Your task to perform on an android device: Open Youtube and go to "Your channel" Image 0: 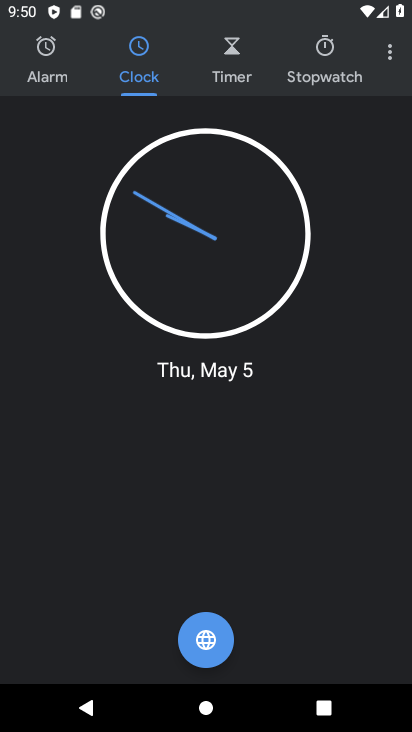
Step 0: press home button
Your task to perform on an android device: Open Youtube and go to "Your channel" Image 1: 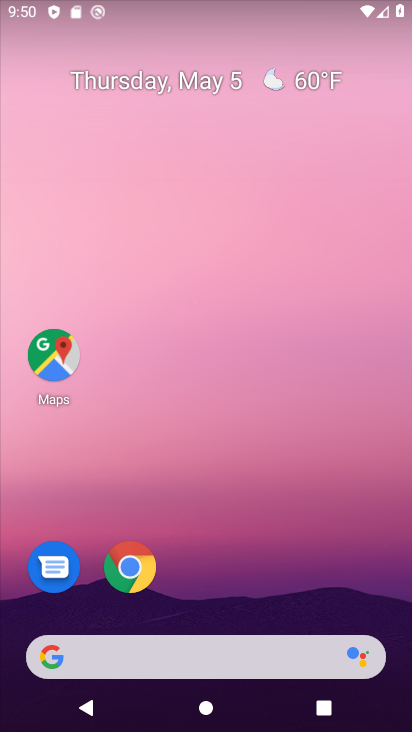
Step 1: drag from (229, 610) to (231, 186)
Your task to perform on an android device: Open Youtube and go to "Your channel" Image 2: 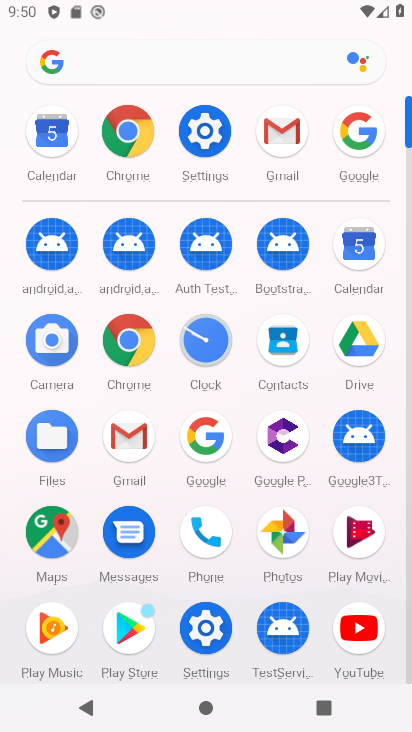
Step 2: click (364, 628)
Your task to perform on an android device: Open Youtube and go to "Your channel" Image 3: 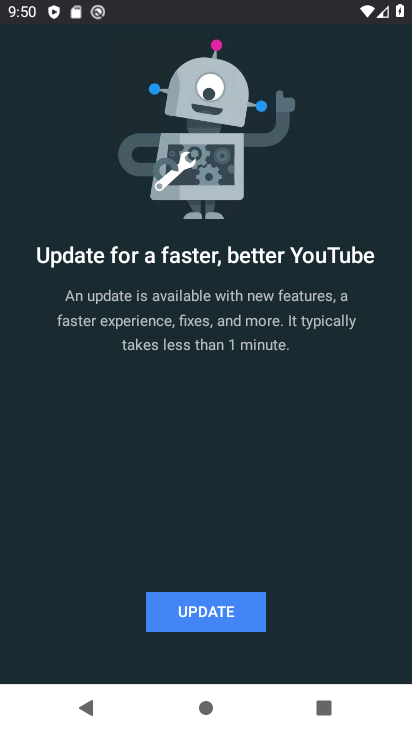
Step 3: click (228, 605)
Your task to perform on an android device: Open Youtube and go to "Your channel" Image 4: 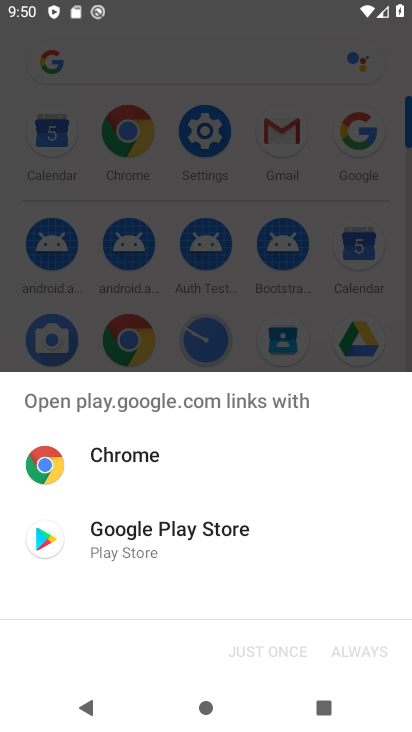
Step 4: click (188, 539)
Your task to perform on an android device: Open Youtube and go to "Your channel" Image 5: 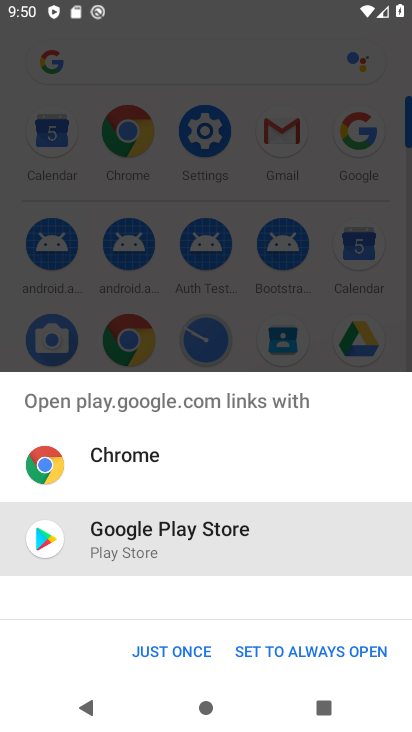
Step 5: click (262, 641)
Your task to perform on an android device: Open Youtube and go to "Your channel" Image 6: 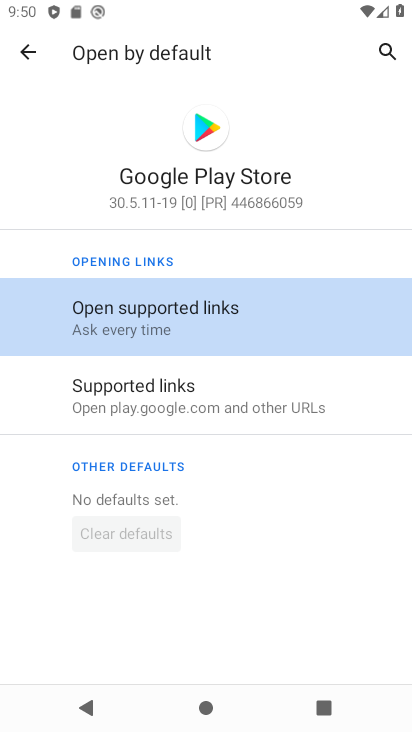
Step 6: click (20, 50)
Your task to perform on an android device: Open Youtube and go to "Your channel" Image 7: 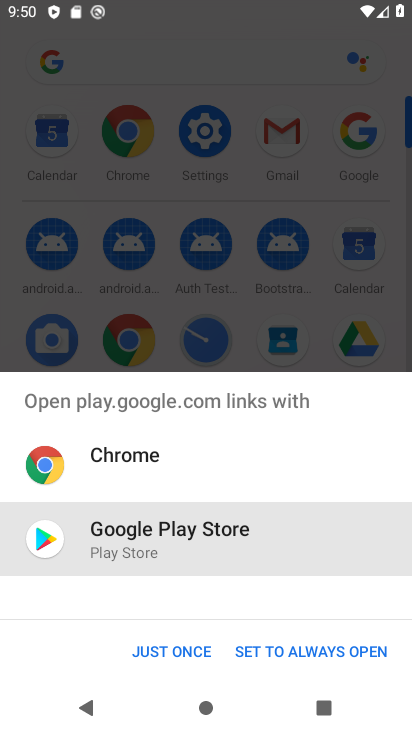
Step 7: click (188, 654)
Your task to perform on an android device: Open Youtube and go to "Your channel" Image 8: 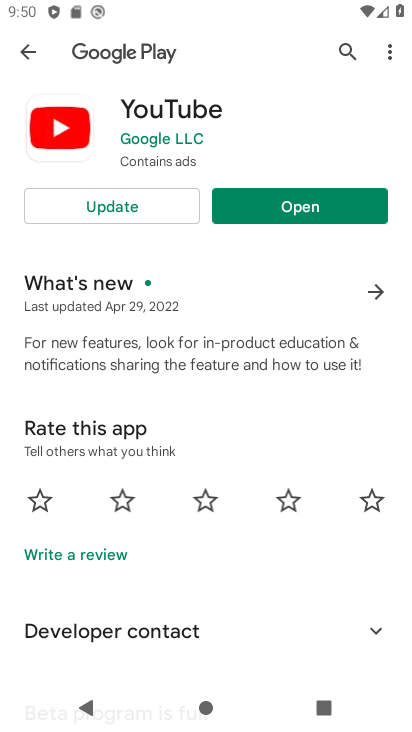
Step 8: click (135, 199)
Your task to perform on an android device: Open Youtube and go to "Your channel" Image 9: 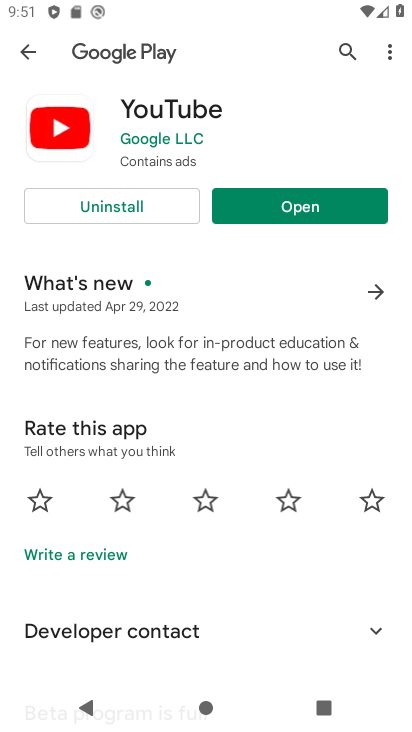
Step 9: click (235, 211)
Your task to perform on an android device: Open Youtube and go to "Your channel" Image 10: 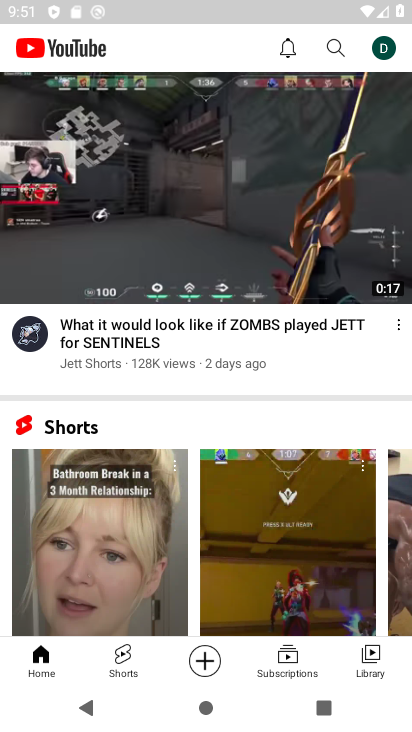
Step 10: click (379, 43)
Your task to perform on an android device: Open Youtube and go to "Your channel" Image 11: 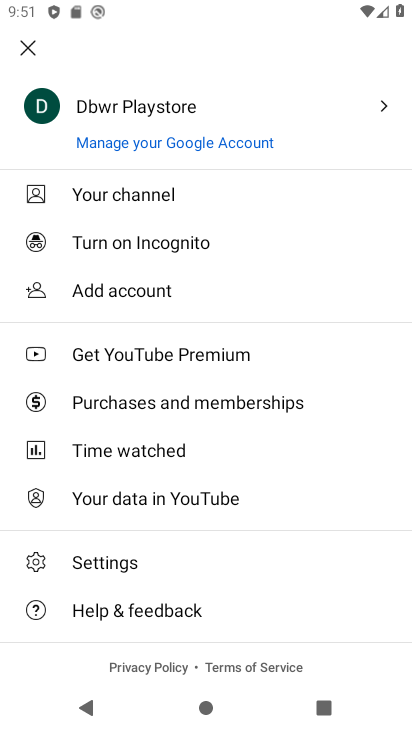
Step 11: click (186, 197)
Your task to perform on an android device: Open Youtube and go to "Your channel" Image 12: 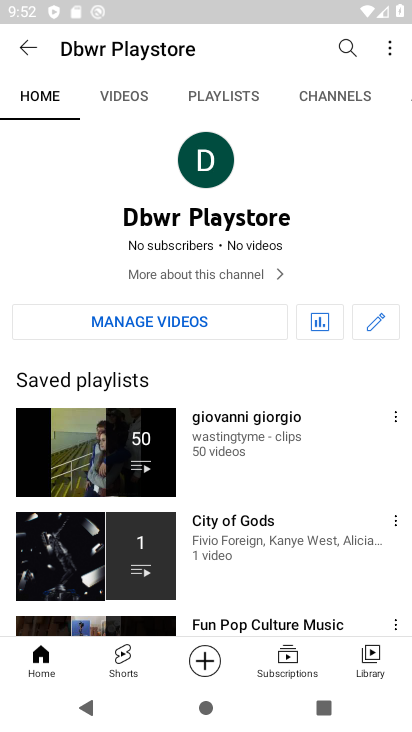
Step 12: task complete